Your task to perform on an android device: set the timer Image 0: 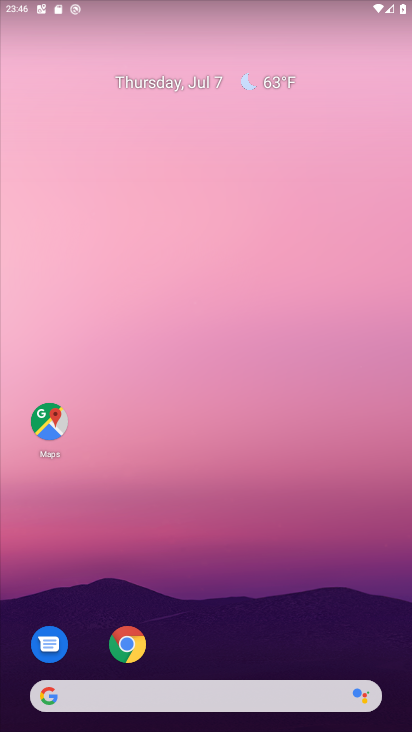
Step 0: drag from (223, 712) to (219, 572)
Your task to perform on an android device: set the timer Image 1: 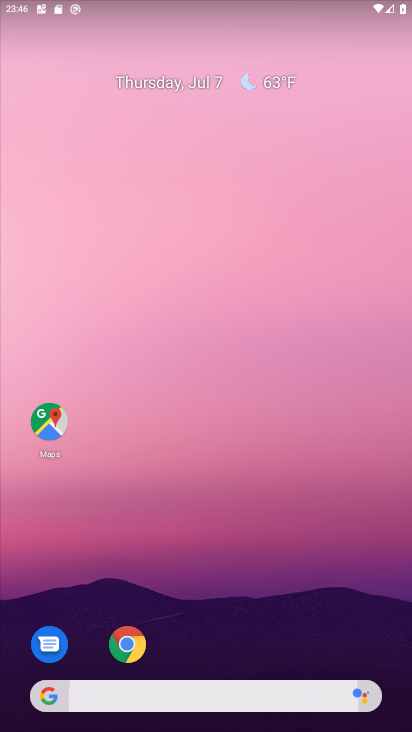
Step 1: click (219, 34)
Your task to perform on an android device: set the timer Image 2: 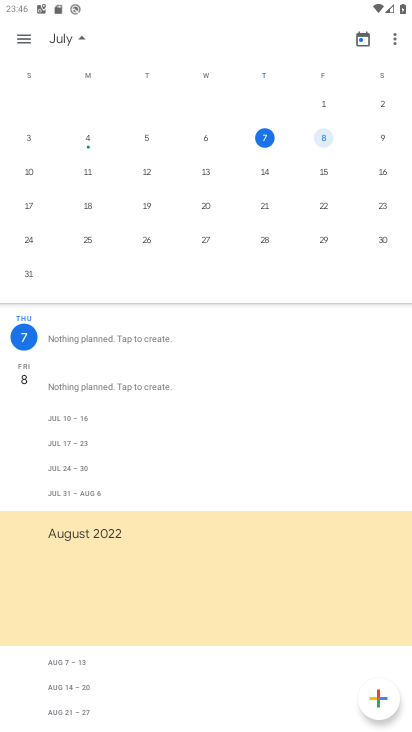
Step 2: press home button
Your task to perform on an android device: set the timer Image 3: 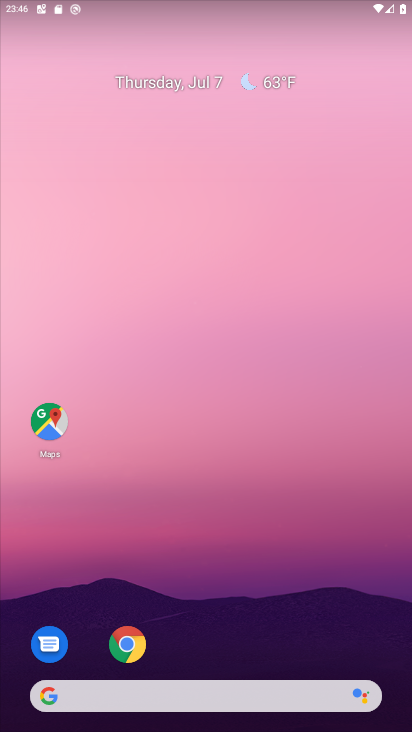
Step 3: drag from (239, 728) to (234, 128)
Your task to perform on an android device: set the timer Image 4: 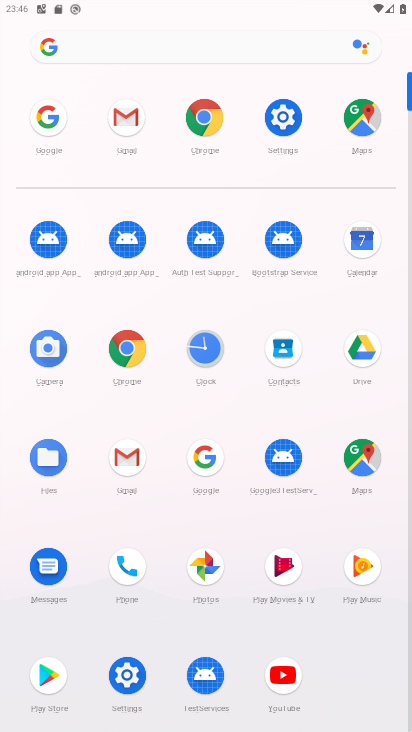
Step 4: click (206, 345)
Your task to perform on an android device: set the timer Image 5: 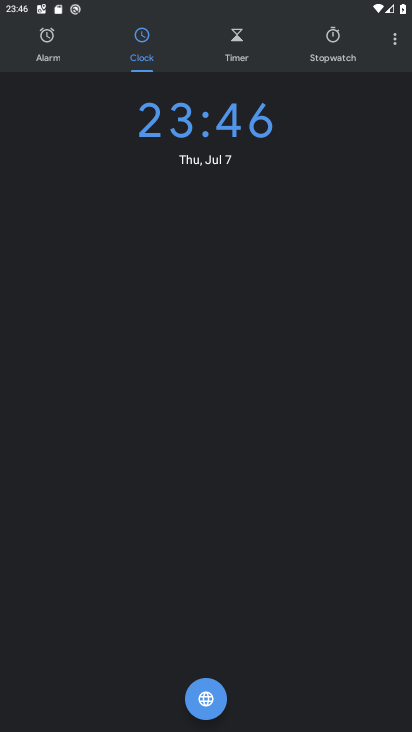
Step 5: click (242, 39)
Your task to perform on an android device: set the timer Image 6: 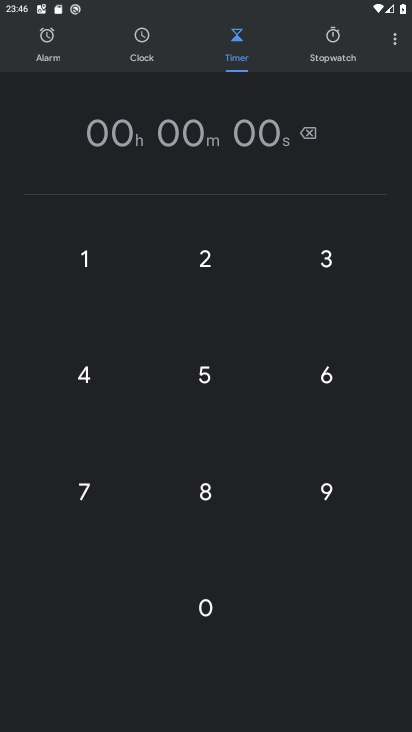
Step 6: click (201, 259)
Your task to perform on an android device: set the timer Image 7: 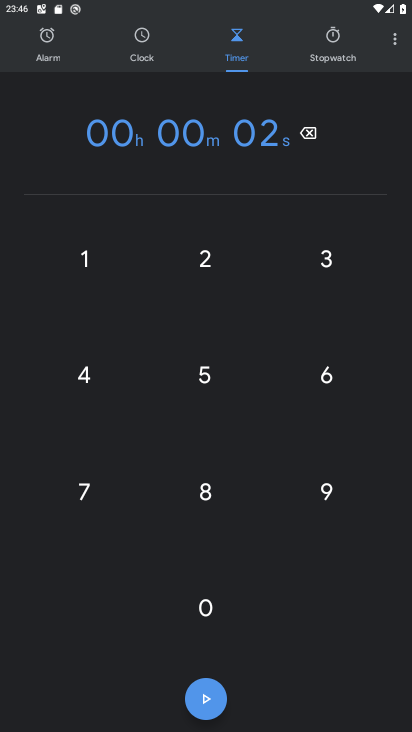
Step 7: click (203, 371)
Your task to perform on an android device: set the timer Image 8: 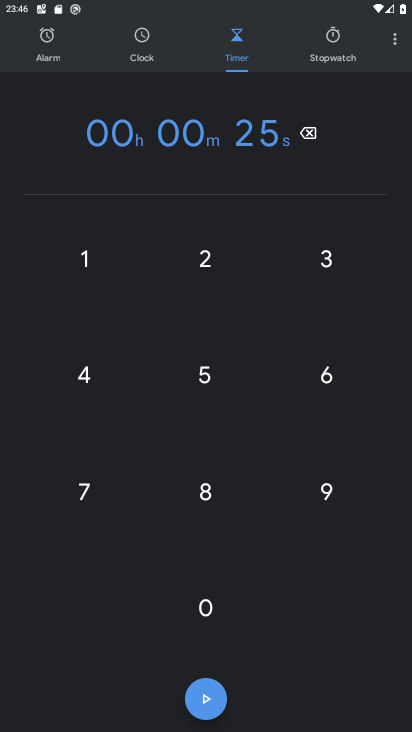
Step 8: click (79, 372)
Your task to perform on an android device: set the timer Image 9: 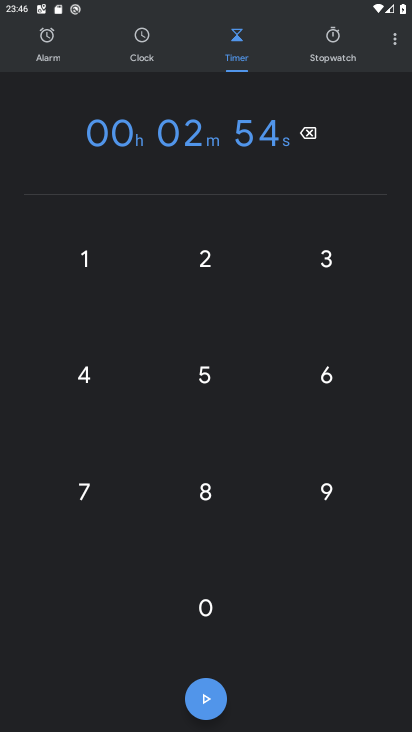
Step 9: click (87, 482)
Your task to perform on an android device: set the timer Image 10: 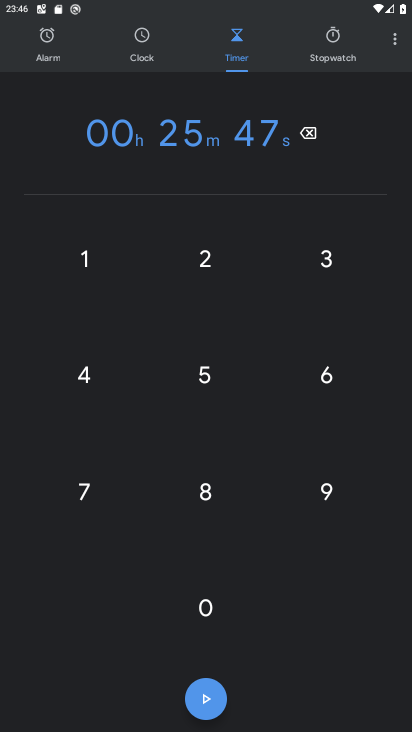
Step 10: click (212, 699)
Your task to perform on an android device: set the timer Image 11: 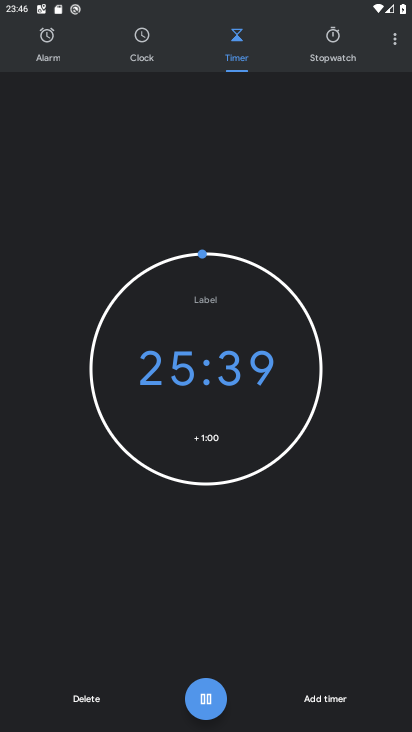
Step 11: task complete